Your task to perform on an android device: Go to Amazon Image 0: 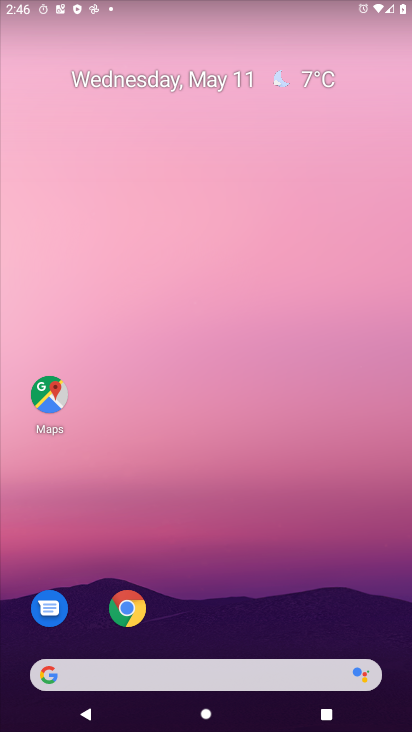
Step 0: click (125, 609)
Your task to perform on an android device: Go to Amazon Image 1: 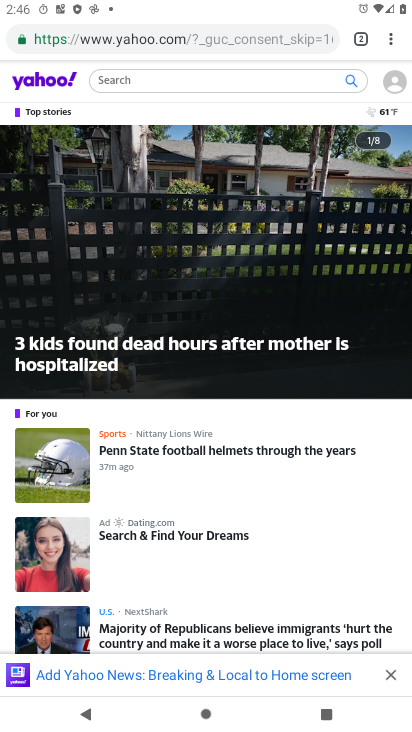
Step 1: press back button
Your task to perform on an android device: Go to Amazon Image 2: 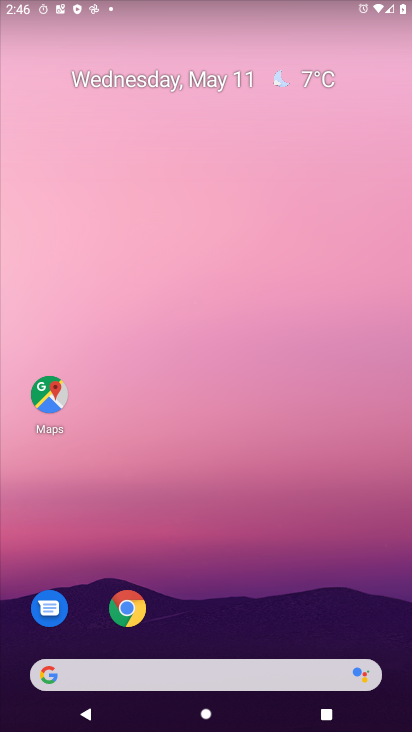
Step 2: click (121, 609)
Your task to perform on an android device: Go to Amazon Image 3: 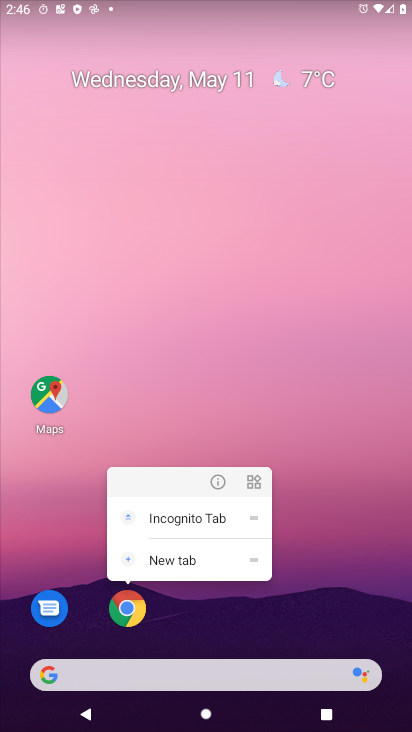
Step 3: click (121, 609)
Your task to perform on an android device: Go to Amazon Image 4: 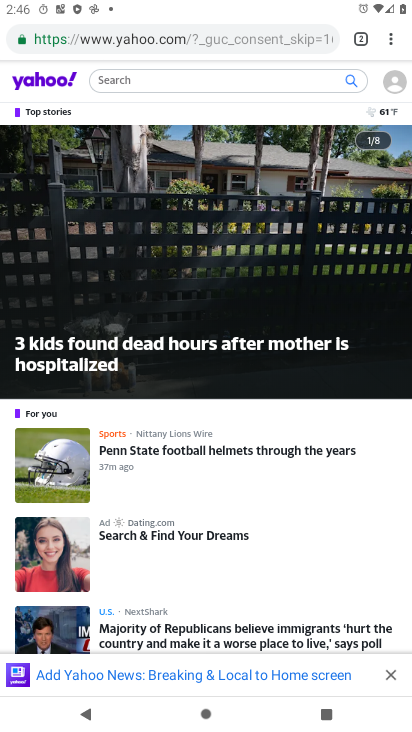
Step 4: click (362, 36)
Your task to perform on an android device: Go to Amazon Image 5: 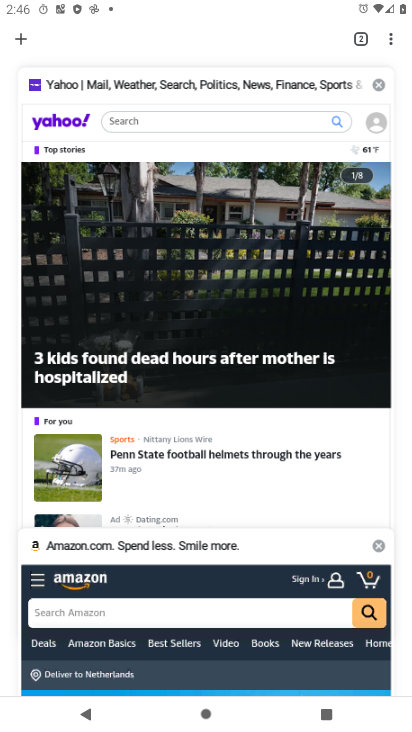
Step 5: click (159, 589)
Your task to perform on an android device: Go to Amazon Image 6: 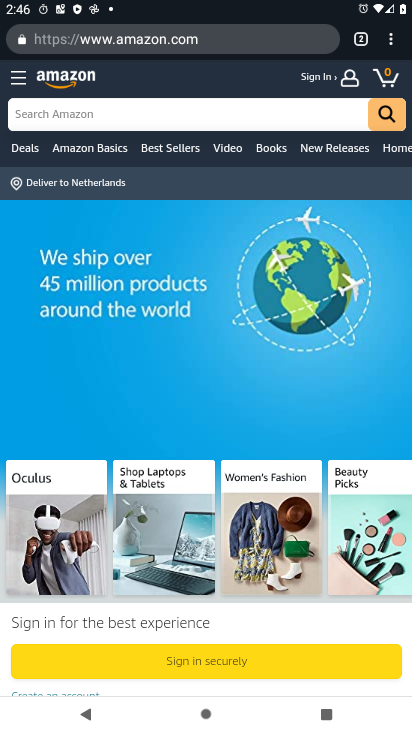
Step 6: task complete